Your task to perform on an android device: Is it going to rain today? Image 0: 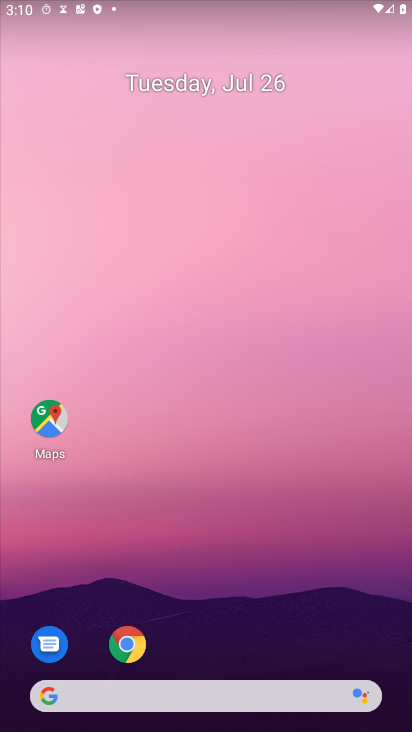
Step 0: press home button
Your task to perform on an android device: Is it going to rain today? Image 1: 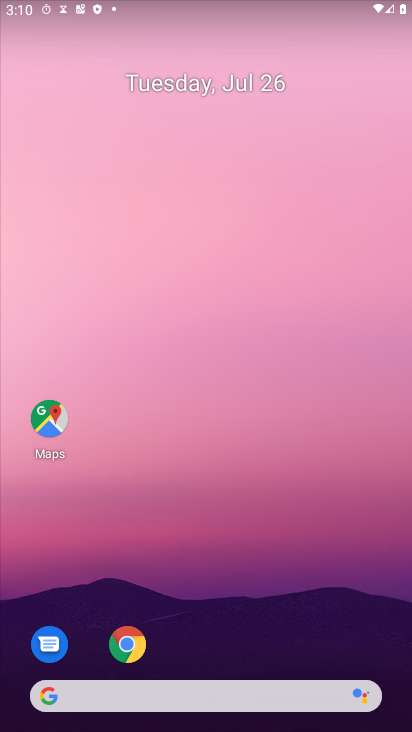
Step 1: click (42, 693)
Your task to perform on an android device: Is it going to rain today? Image 2: 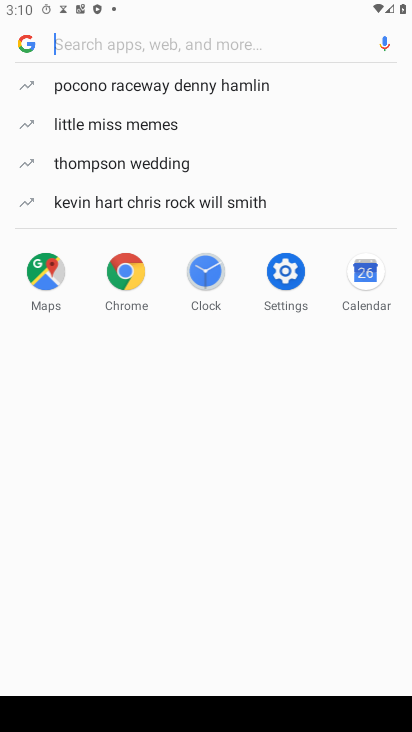
Step 2: type "Is it going to rain today?"
Your task to perform on an android device: Is it going to rain today? Image 3: 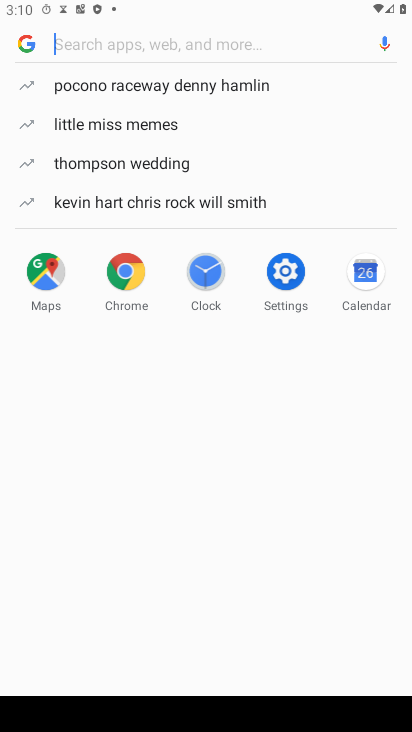
Step 3: click (85, 35)
Your task to perform on an android device: Is it going to rain today? Image 4: 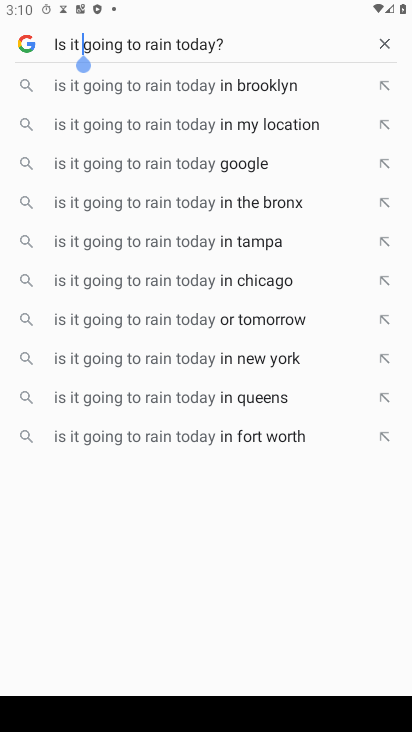
Step 4: press enter
Your task to perform on an android device: Is it going to rain today? Image 5: 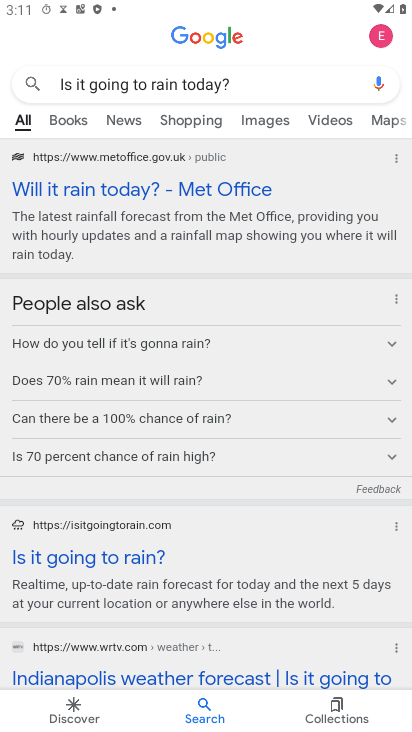
Step 5: task complete